Your task to perform on an android device: turn on javascript in the chrome app Image 0: 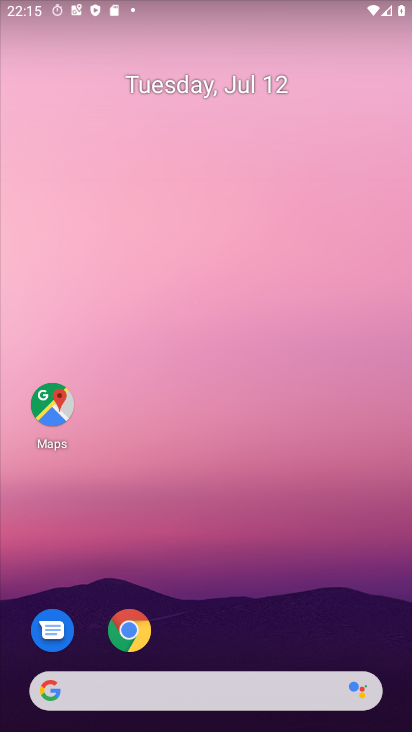
Step 0: click (122, 619)
Your task to perform on an android device: turn on javascript in the chrome app Image 1: 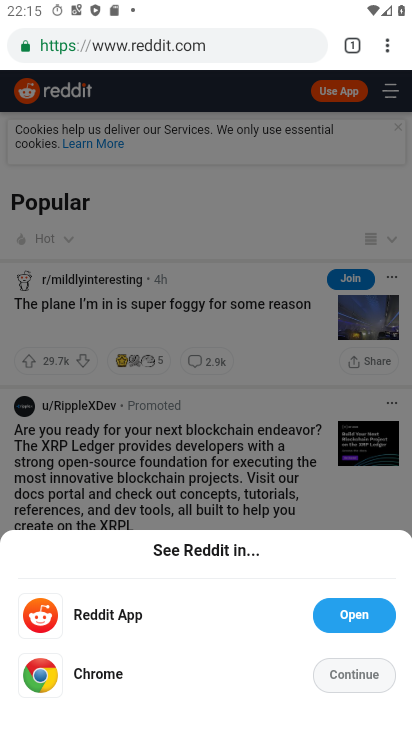
Step 1: drag from (388, 41) to (221, 544)
Your task to perform on an android device: turn on javascript in the chrome app Image 2: 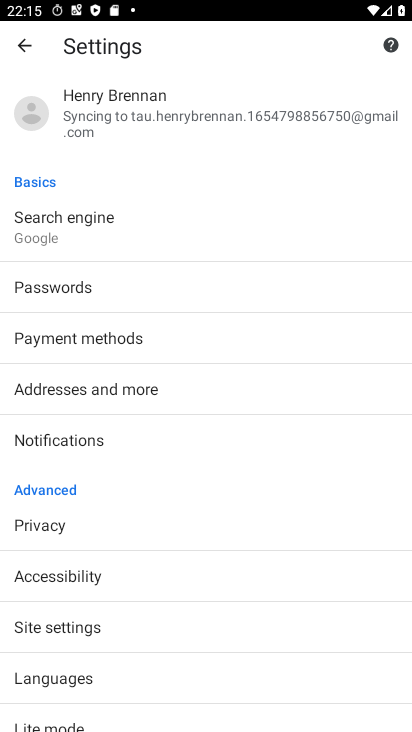
Step 2: click (81, 640)
Your task to perform on an android device: turn on javascript in the chrome app Image 3: 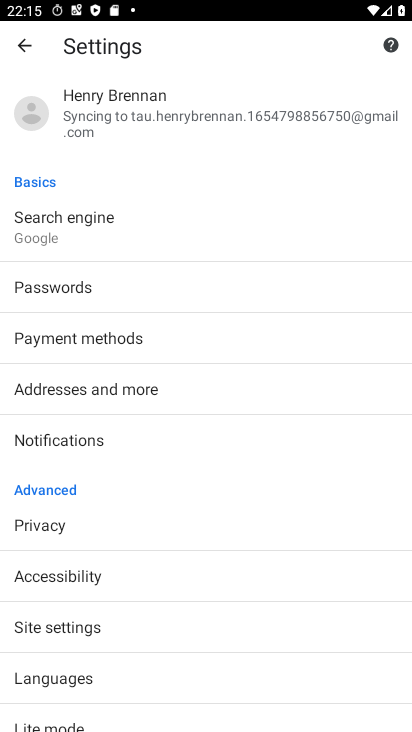
Step 3: click (74, 631)
Your task to perform on an android device: turn on javascript in the chrome app Image 4: 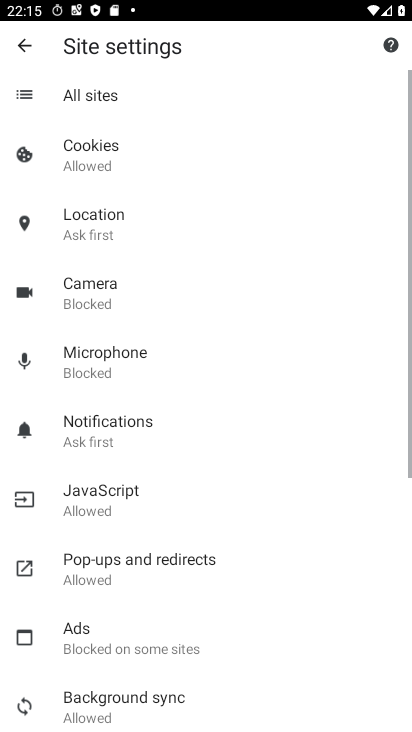
Step 4: click (95, 506)
Your task to perform on an android device: turn on javascript in the chrome app Image 5: 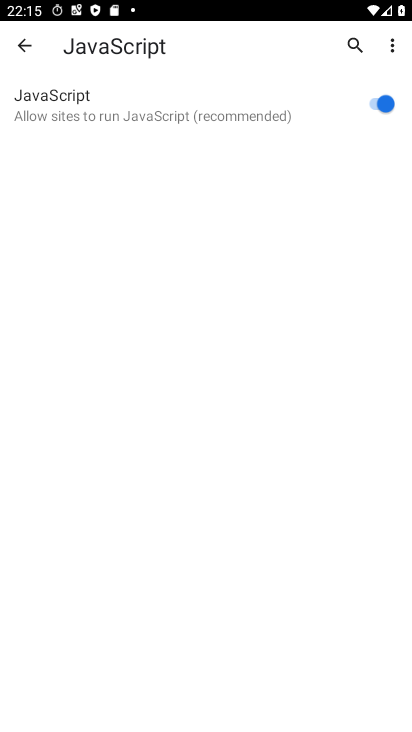
Step 5: task complete